Your task to perform on an android device: allow notifications from all sites in the chrome app Image 0: 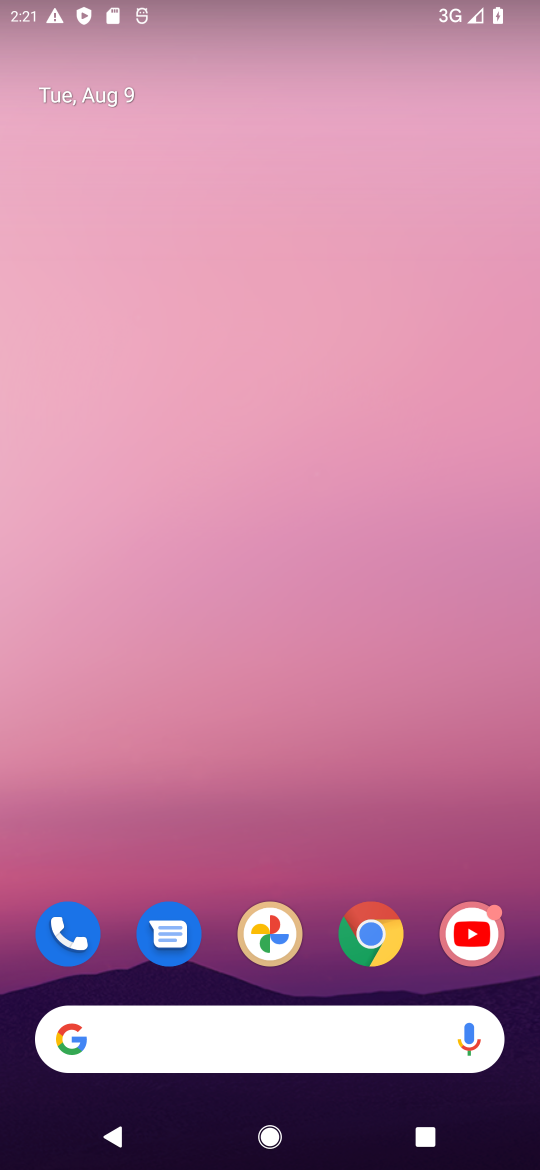
Step 0: click (359, 932)
Your task to perform on an android device: allow notifications from all sites in the chrome app Image 1: 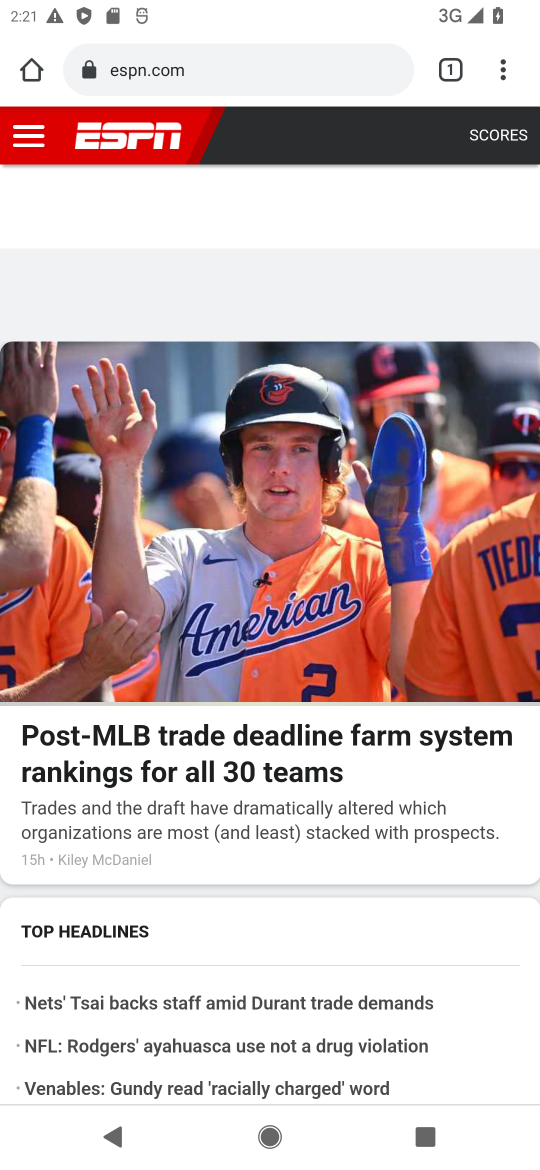
Step 1: click (492, 88)
Your task to perform on an android device: allow notifications from all sites in the chrome app Image 2: 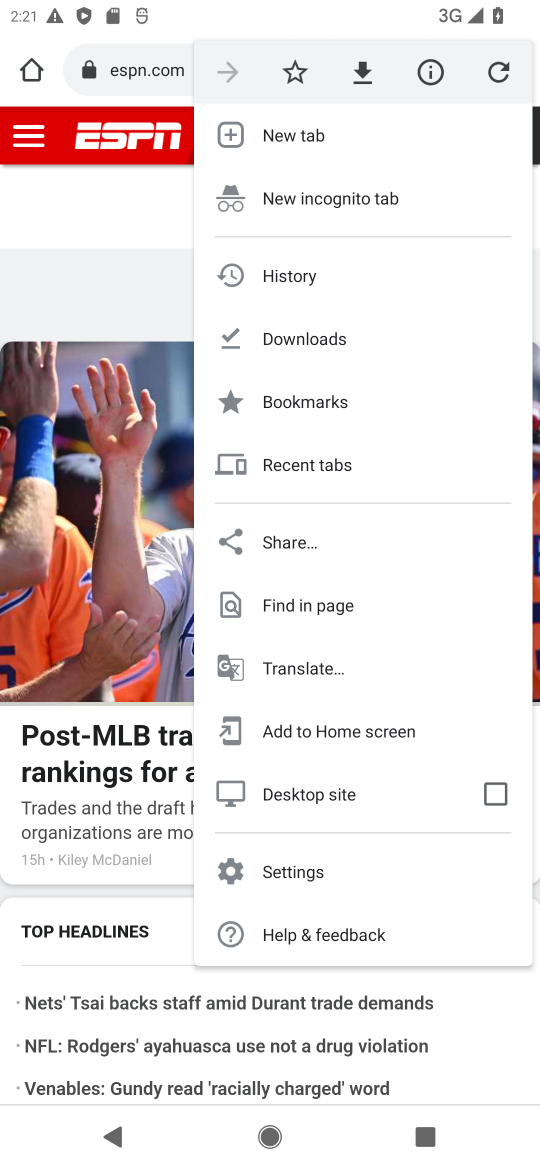
Step 2: click (309, 886)
Your task to perform on an android device: allow notifications from all sites in the chrome app Image 3: 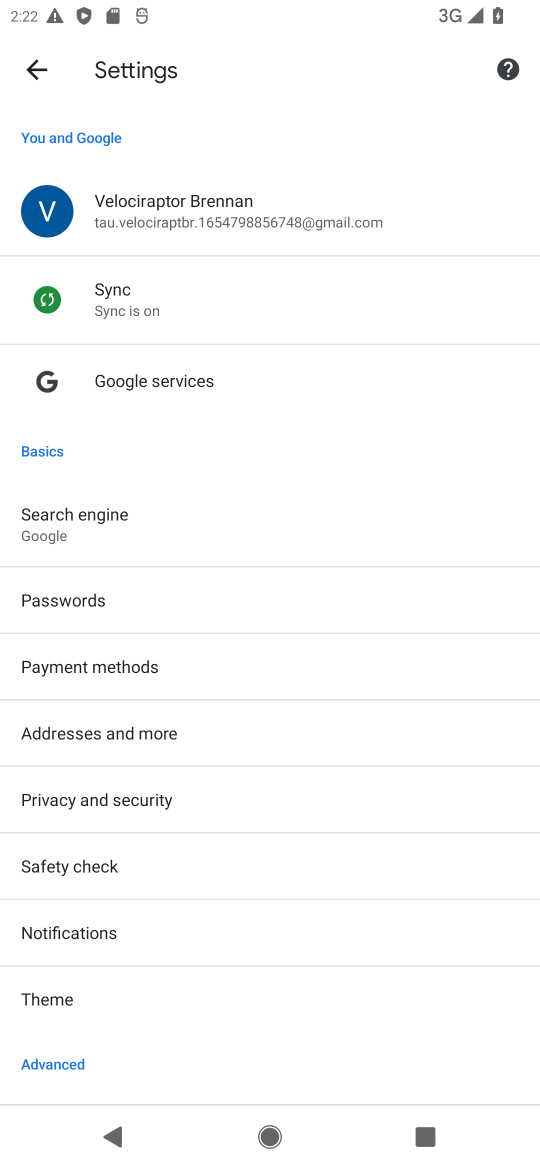
Step 3: click (94, 954)
Your task to perform on an android device: allow notifications from all sites in the chrome app Image 4: 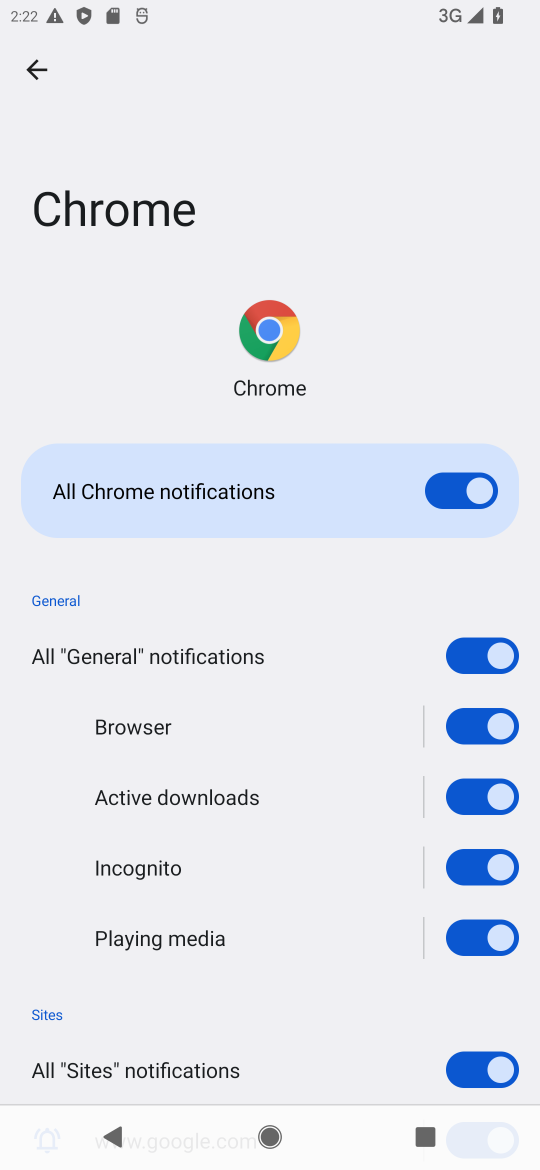
Step 4: task complete